Your task to perform on an android device: empty trash in google photos Image 0: 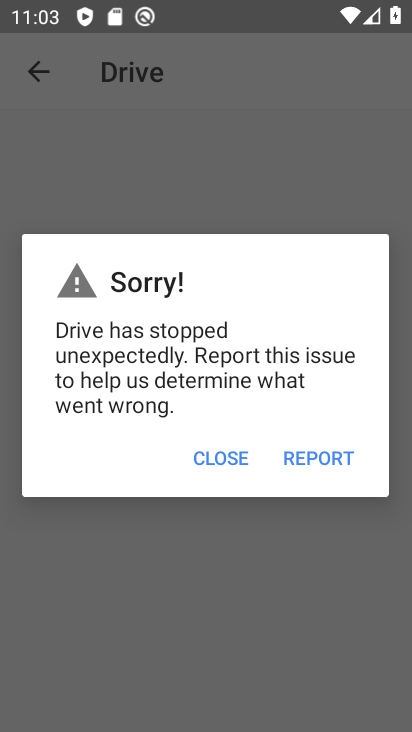
Step 0: press home button
Your task to perform on an android device: empty trash in google photos Image 1: 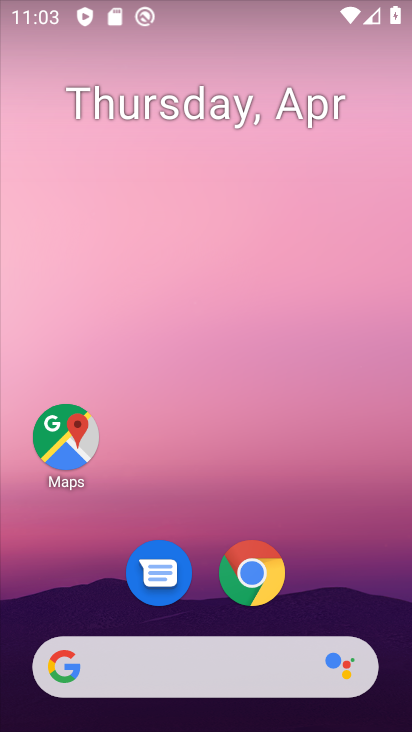
Step 1: drag from (314, 560) to (310, 53)
Your task to perform on an android device: empty trash in google photos Image 2: 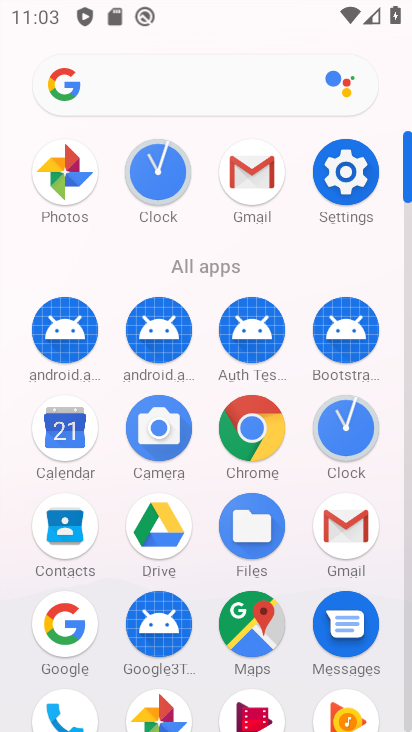
Step 2: click (163, 704)
Your task to perform on an android device: empty trash in google photos Image 3: 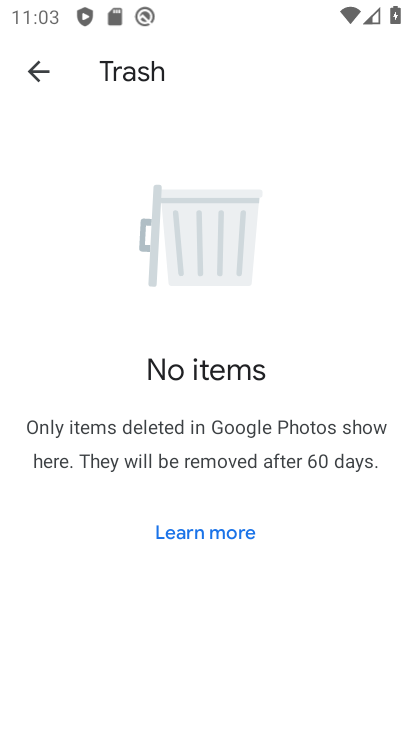
Step 3: task complete